Your task to perform on an android device: create a new album in the google photos Image 0: 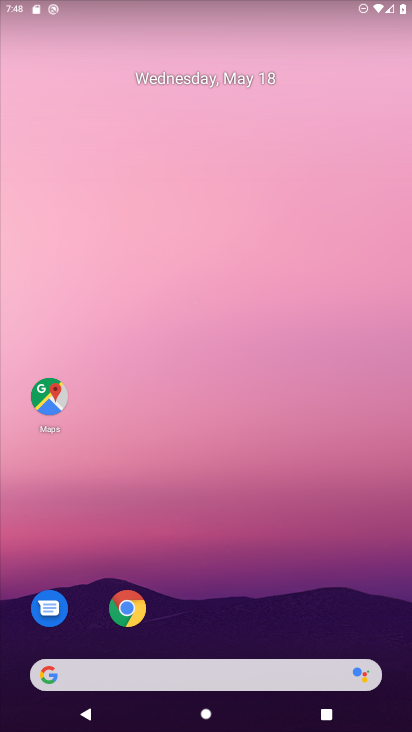
Step 0: drag from (244, 595) to (249, 2)
Your task to perform on an android device: create a new album in the google photos Image 1: 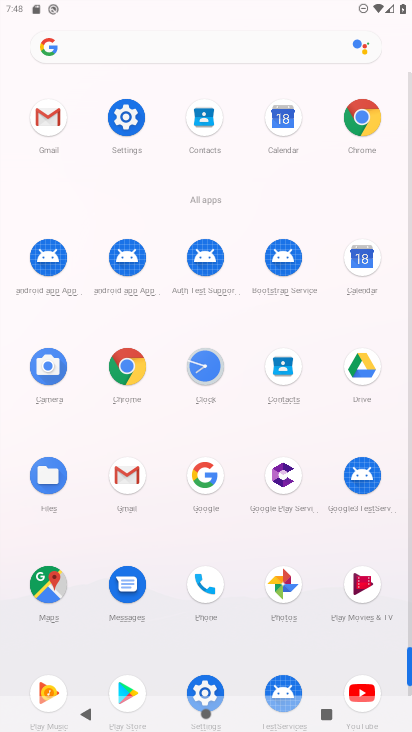
Step 1: click (280, 591)
Your task to perform on an android device: create a new album in the google photos Image 2: 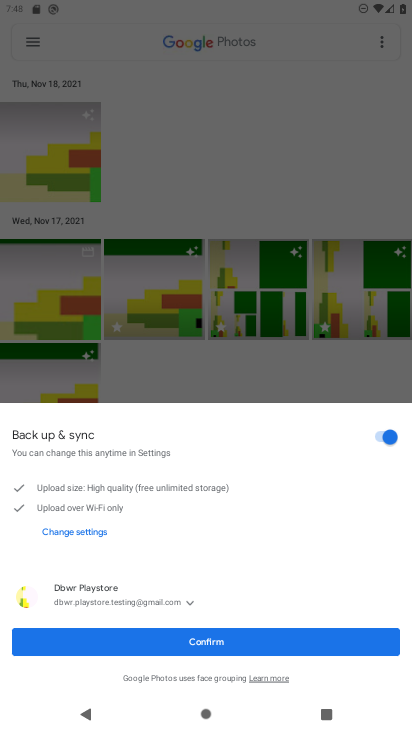
Step 2: click (144, 647)
Your task to perform on an android device: create a new album in the google photos Image 3: 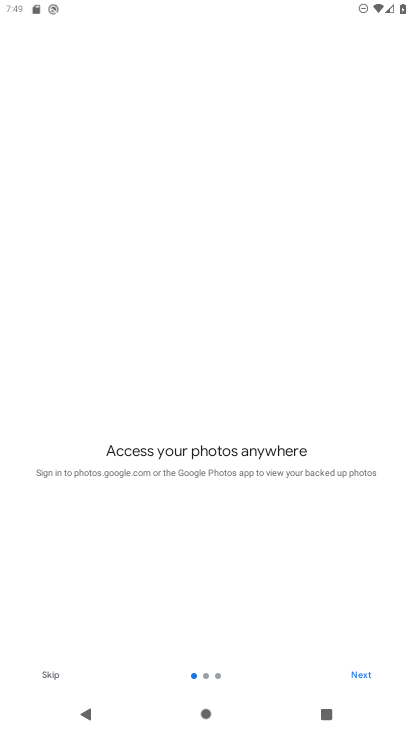
Step 3: click (372, 672)
Your task to perform on an android device: create a new album in the google photos Image 4: 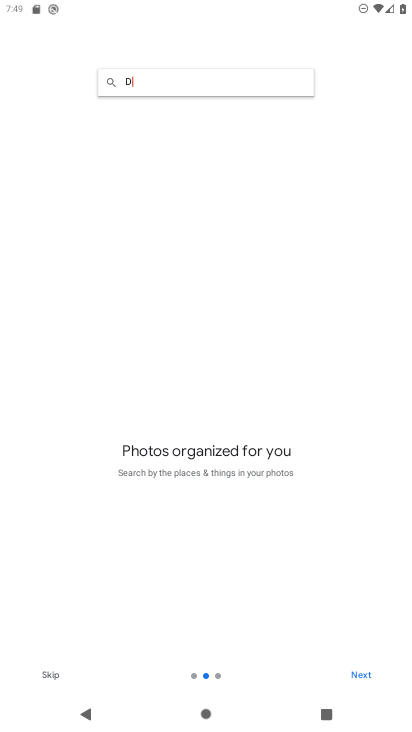
Step 4: click (372, 672)
Your task to perform on an android device: create a new album in the google photos Image 5: 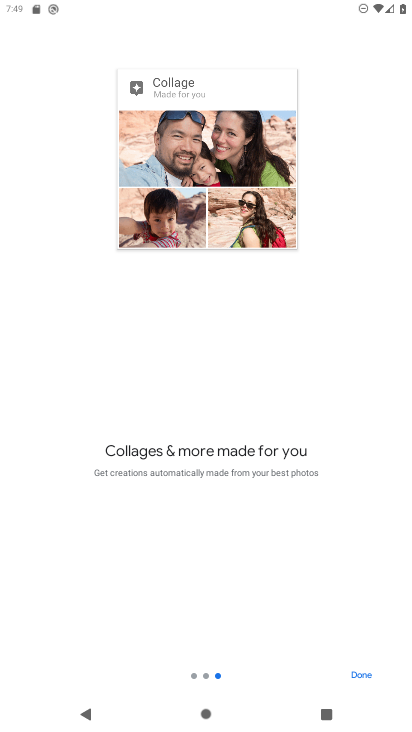
Step 5: click (365, 676)
Your task to perform on an android device: create a new album in the google photos Image 6: 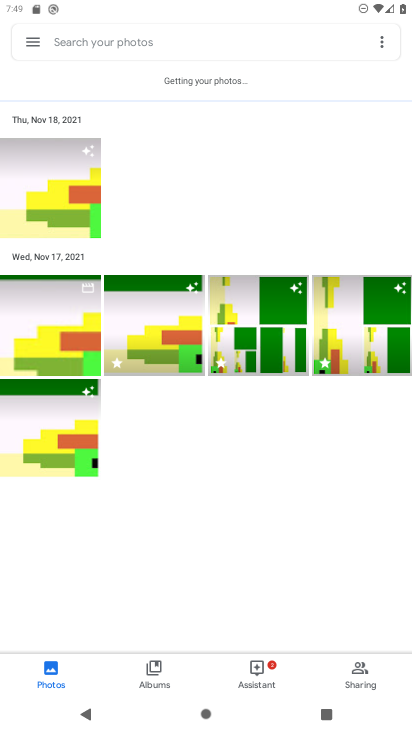
Step 6: click (127, 327)
Your task to perform on an android device: create a new album in the google photos Image 7: 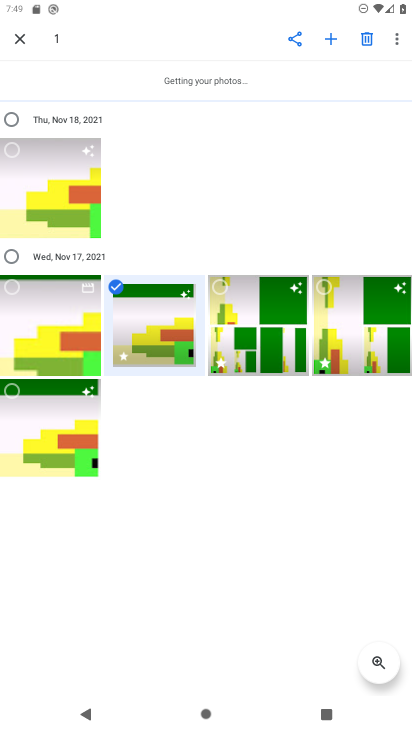
Step 7: click (60, 331)
Your task to perform on an android device: create a new album in the google photos Image 8: 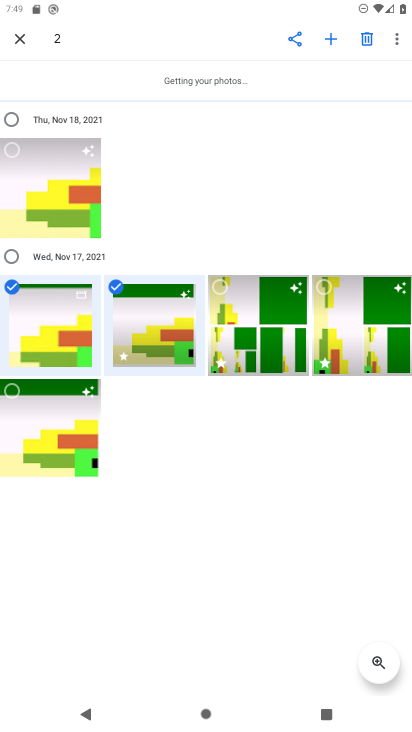
Step 8: click (57, 420)
Your task to perform on an android device: create a new album in the google photos Image 9: 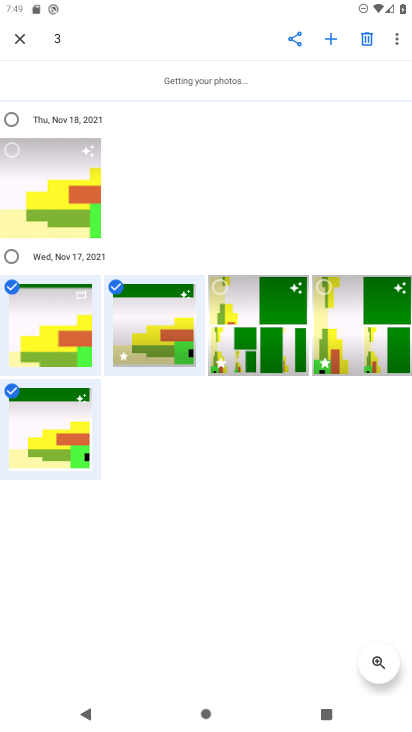
Step 9: click (335, 34)
Your task to perform on an android device: create a new album in the google photos Image 10: 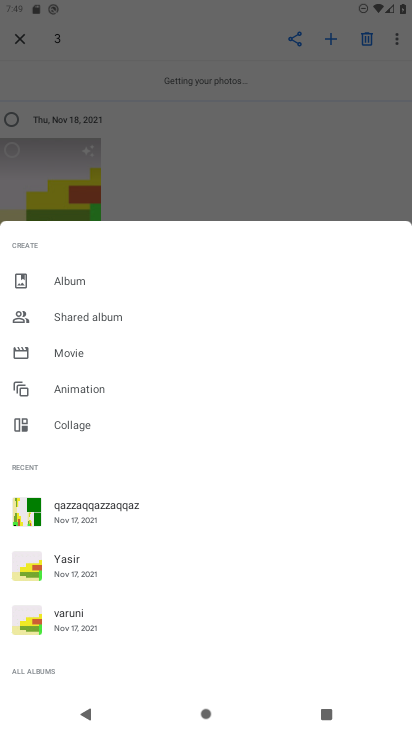
Step 10: click (111, 276)
Your task to perform on an android device: create a new album in the google photos Image 11: 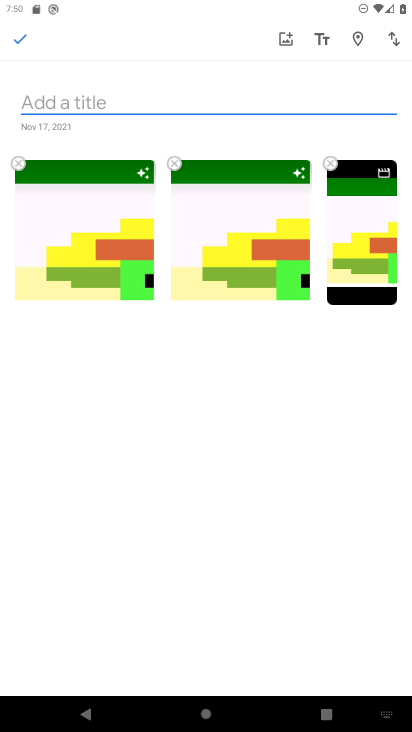
Step 11: type "nnn"
Your task to perform on an android device: create a new album in the google photos Image 12: 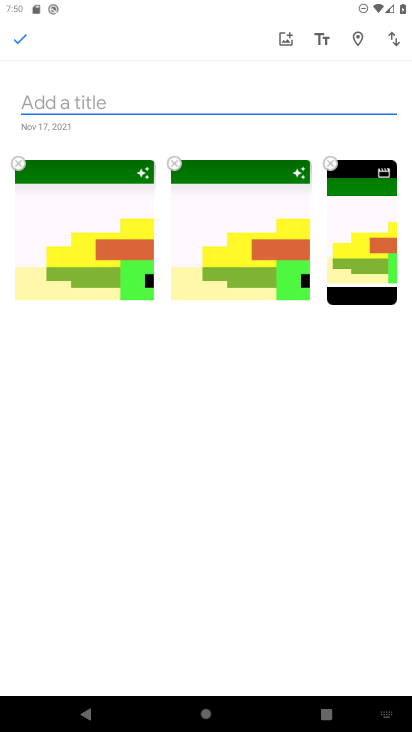
Step 12: click (22, 41)
Your task to perform on an android device: create a new album in the google photos Image 13: 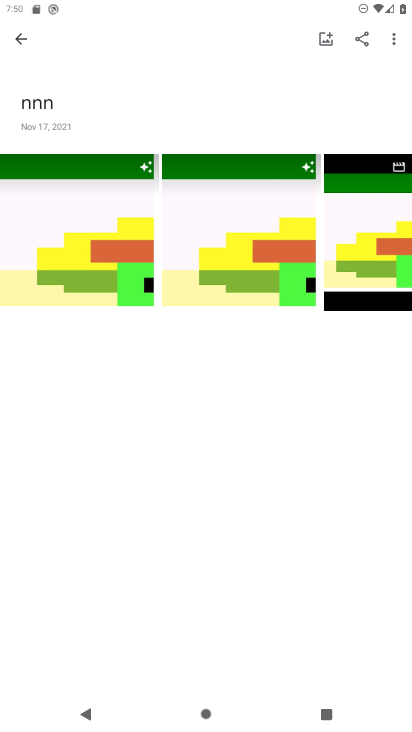
Step 13: task complete